Your task to perform on an android device: Turn off the flashlight Image 0: 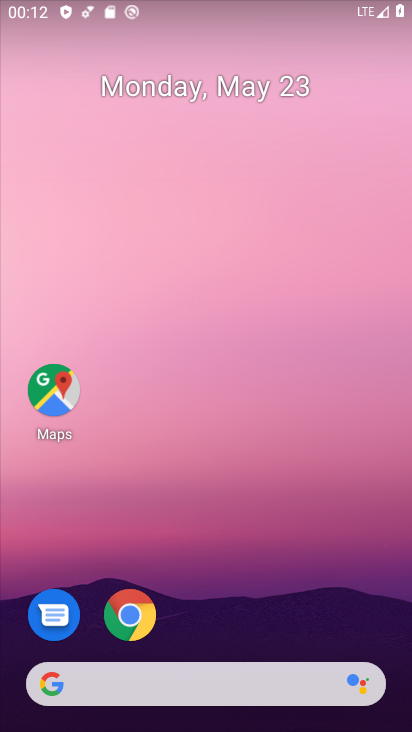
Step 0: drag from (258, 570) to (334, 103)
Your task to perform on an android device: Turn off the flashlight Image 1: 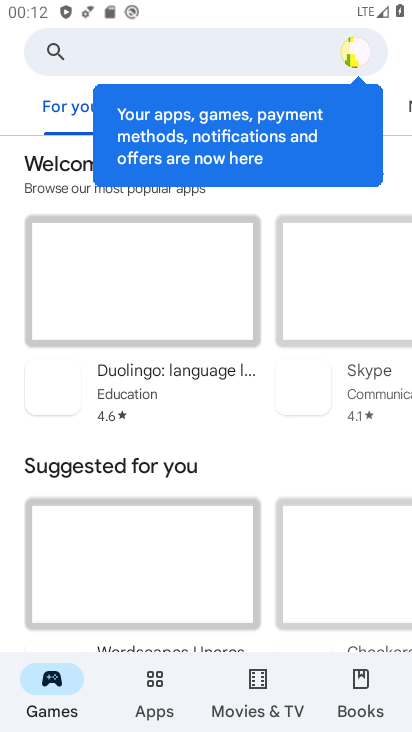
Step 1: press back button
Your task to perform on an android device: Turn off the flashlight Image 2: 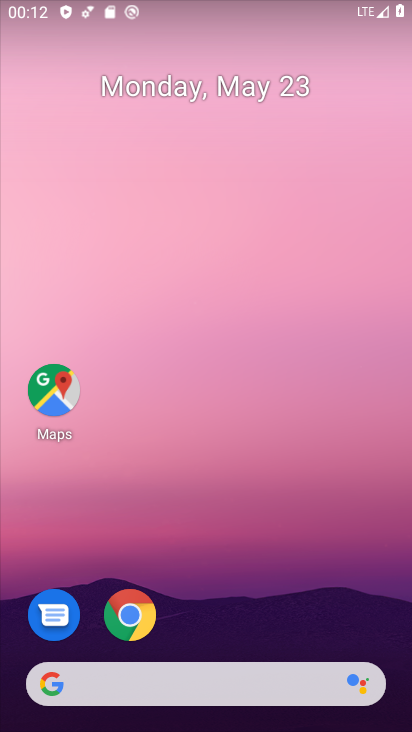
Step 2: drag from (161, 581) to (295, 1)
Your task to perform on an android device: Turn off the flashlight Image 3: 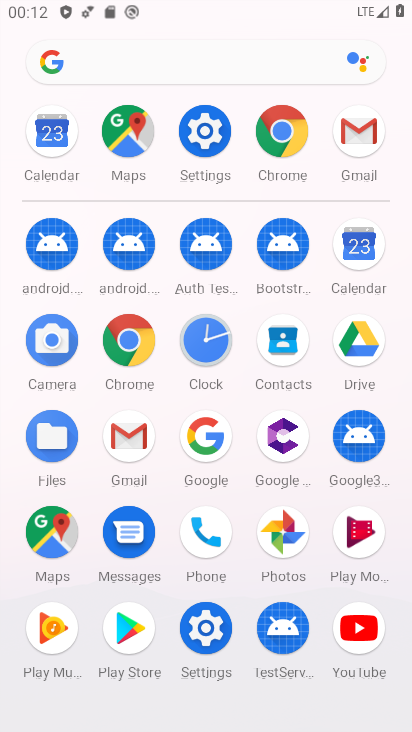
Step 3: click (204, 187)
Your task to perform on an android device: Turn off the flashlight Image 4: 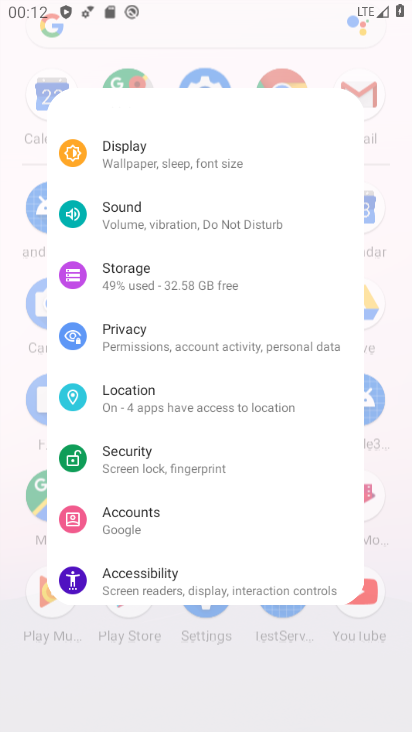
Step 4: click (217, 155)
Your task to perform on an android device: Turn off the flashlight Image 5: 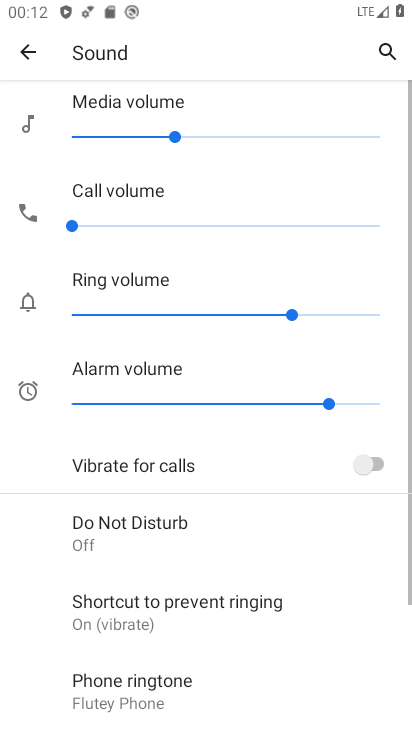
Step 5: drag from (183, 155) to (211, 630)
Your task to perform on an android device: Turn off the flashlight Image 6: 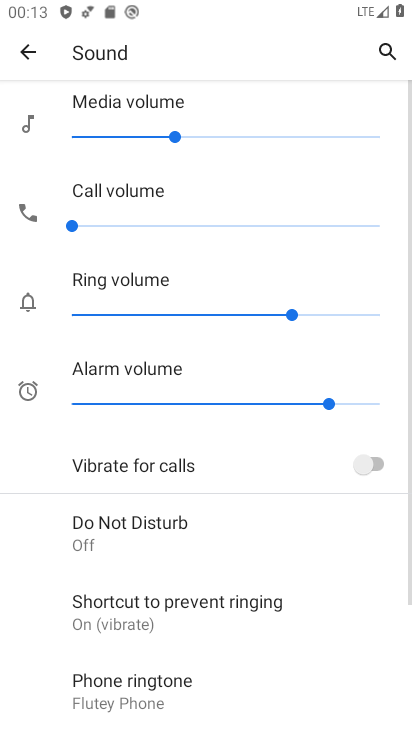
Step 6: click (29, 47)
Your task to perform on an android device: Turn off the flashlight Image 7: 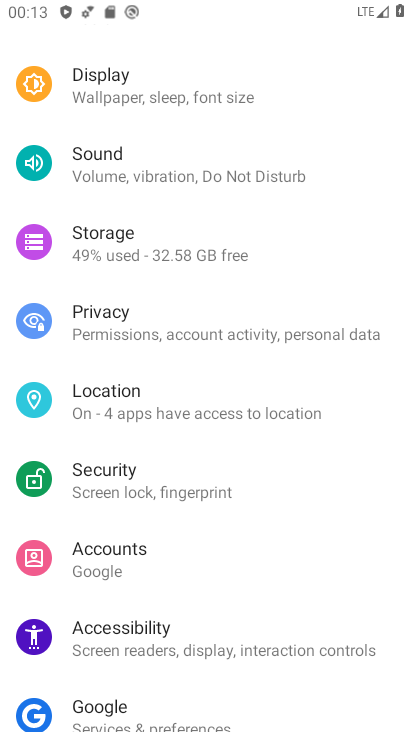
Step 7: drag from (260, 110) to (226, 729)
Your task to perform on an android device: Turn off the flashlight Image 8: 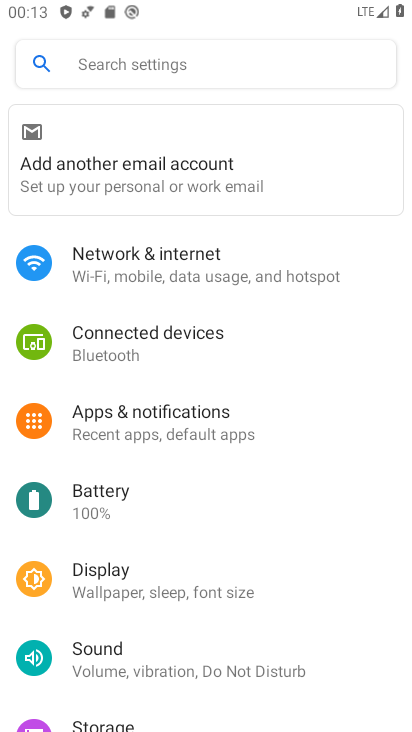
Step 8: click (192, 54)
Your task to perform on an android device: Turn off the flashlight Image 9: 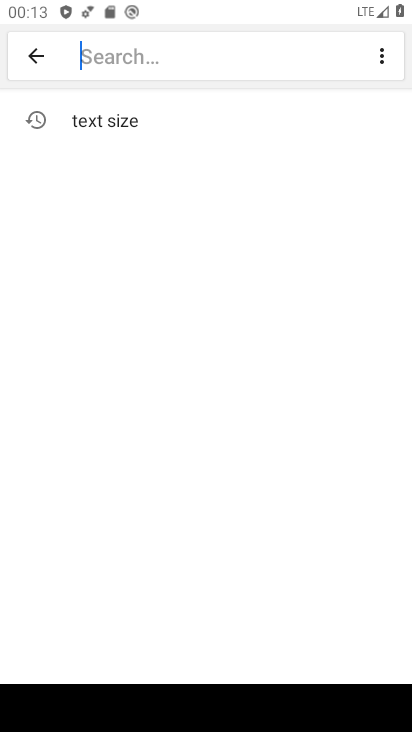
Step 9: type "flashlight"
Your task to perform on an android device: Turn off the flashlight Image 10: 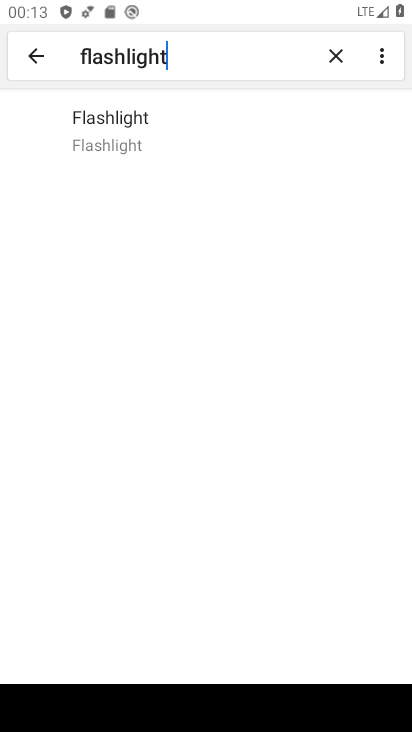
Step 10: click (135, 127)
Your task to perform on an android device: Turn off the flashlight Image 11: 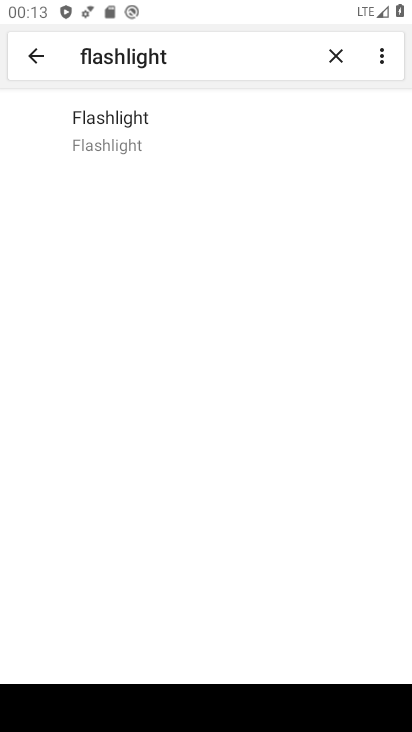
Step 11: click (171, 121)
Your task to perform on an android device: Turn off the flashlight Image 12: 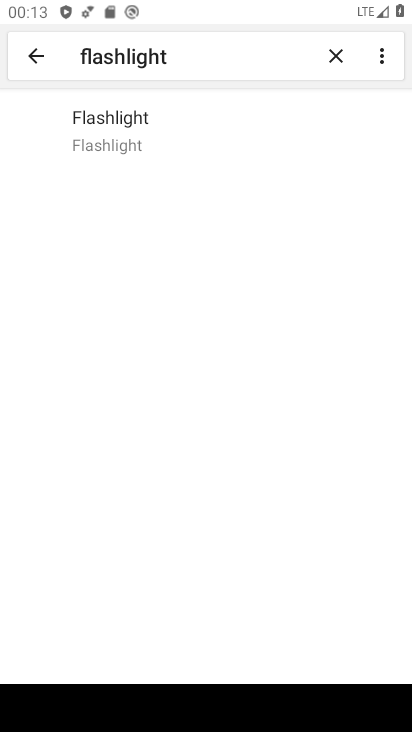
Step 12: click (159, 132)
Your task to perform on an android device: Turn off the flashlight Image 13: 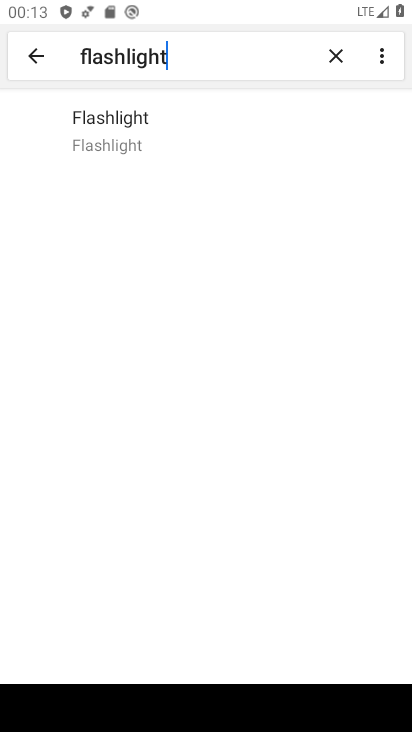
Step 13: task complete